Your task to perform on an android device: change text size in settings app Image 0: 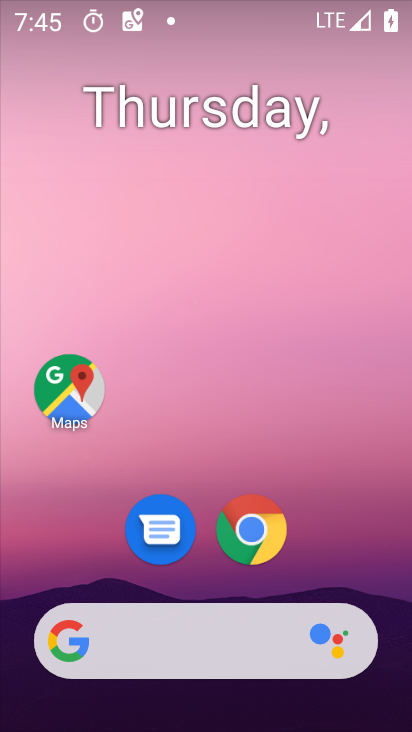
Step 0: drag from (385, 590) to (393, 212)
Your task to perform on an android device: change text size in settings app Image 1: 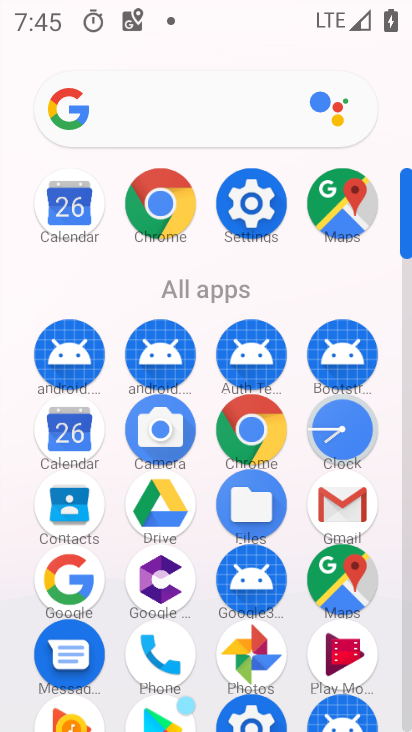
Step 1: click (247, 226)
Your task to perform on an android device: change text size in settings app Image 2: 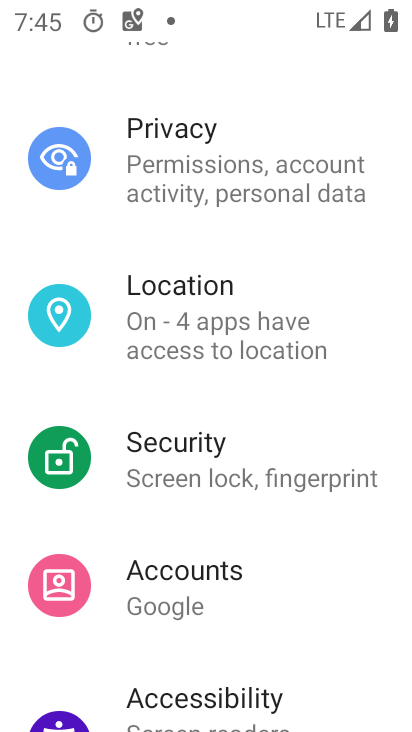
Step 2: drag from (360, 282) to (353, 401)
Your task to perform on an android device: change text size in settings app Image 3: 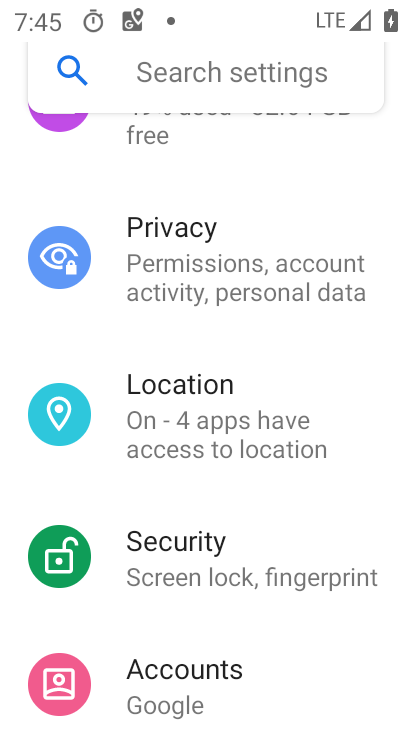
Step 3: drag from (364, 175) to (348, 391)
Your task to perform on an android device: change text size in settings app Image 4: 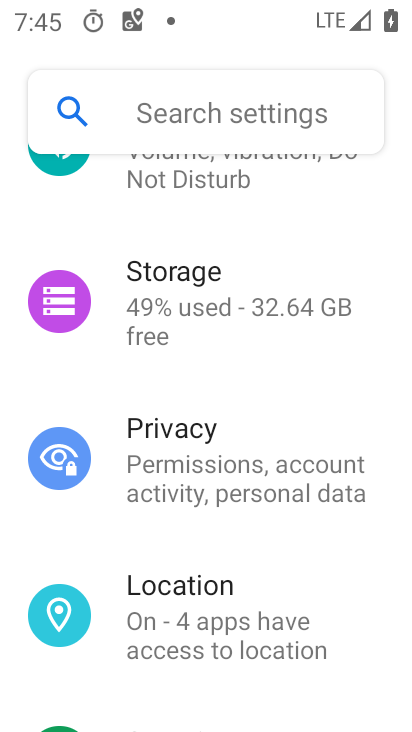
Step 4: drag from (375, 211) to (377, 371)
Your task to perform on an android device: change text size in settings app Image 5: 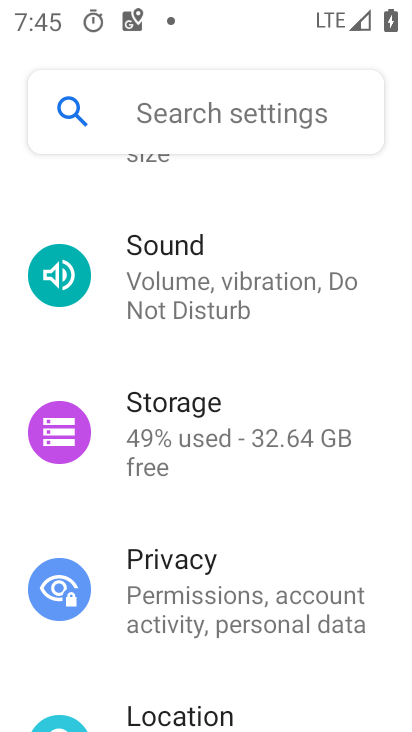
Step 5: drag from (382, 194) to (375, 338)
Your task to perform on an android device: change text size in settings app Image 6: 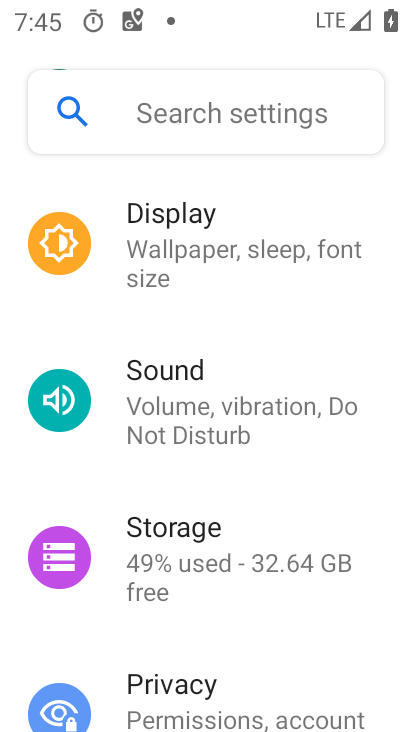
Step 6: drag from (385, 169) to (378, 276)
Your task to perform on an android device: change text size in settings app Image 7: 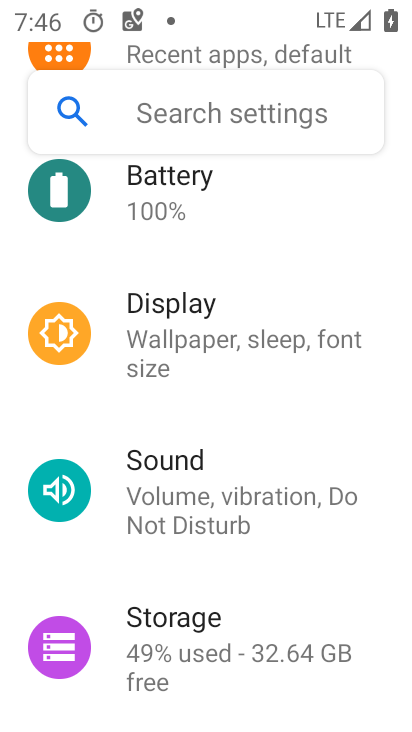
Step 7: drag from (379, 183) to (375, 293)
Your task to perform on an android device: change text size in settings app Image 8: 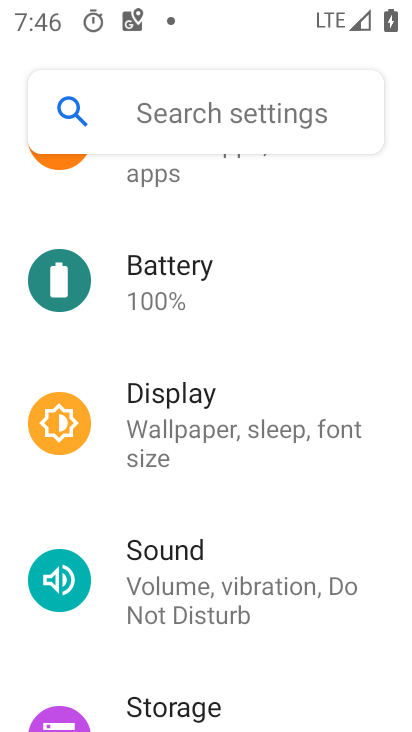
Step 8: drag from (371, 189) to (363, 294)
Your task to perform on an android device: change text size in settings app Image 9: 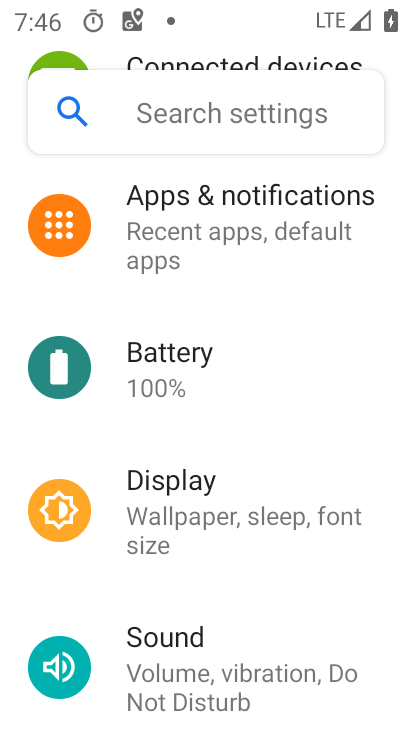
Step 9: drag from (389, 171) to (378, 264)
Your task to perform on an android device: change text size in settings app Image 10: 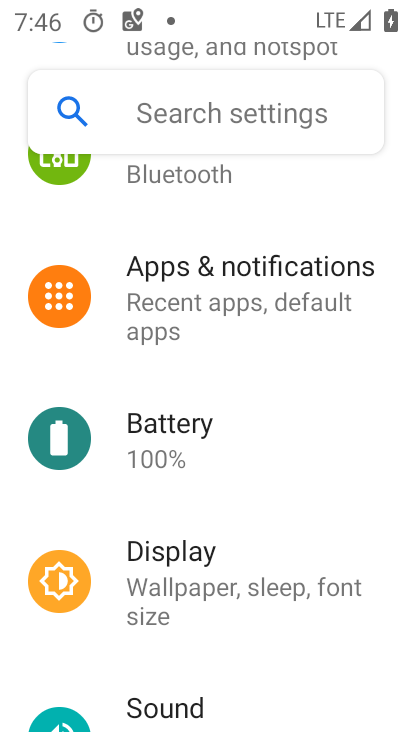
Step 10: drag from (380, 199) to (373, 286)
Your task to perform on an android device: change text size in settings app Image 11: 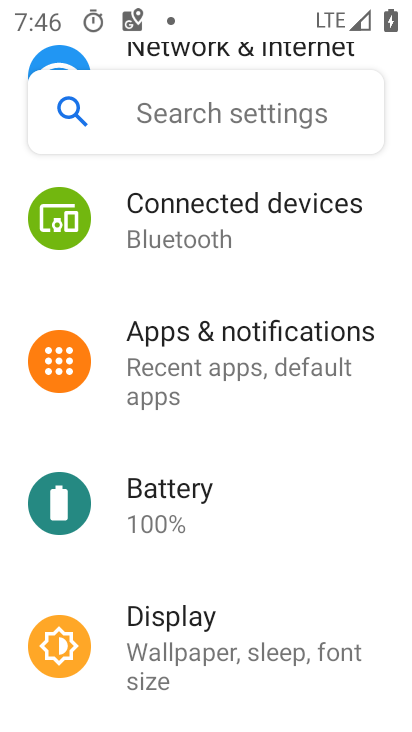
Step 11: drag from (382, 169) to (380, 285)
Your task to perform on an android device: change text size in settings app Image 12: 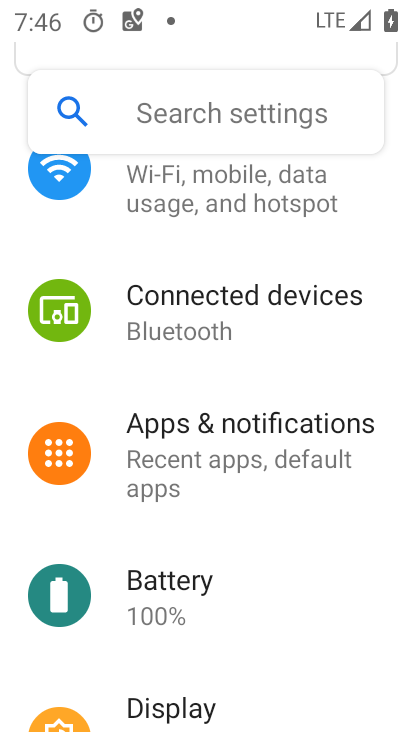
Step 12: drag from (377, 314) to (381, 208)
Your task to perform on an android device: change text size in settings app Image 13: 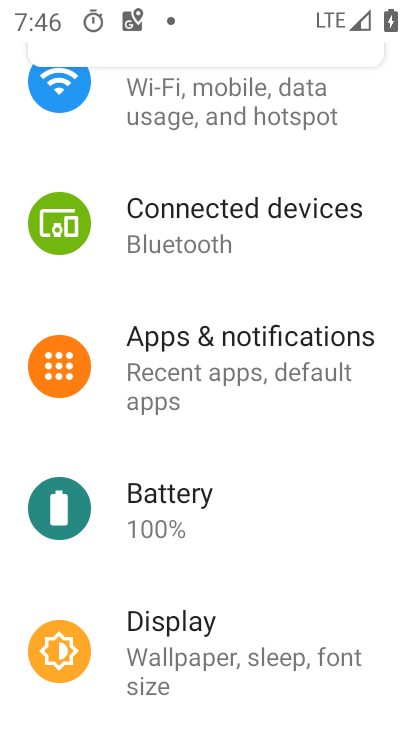
Step 13: drag from (376, 286) to (380, 198)
Your task to perform on an android device: change text size in settings app Image 14: 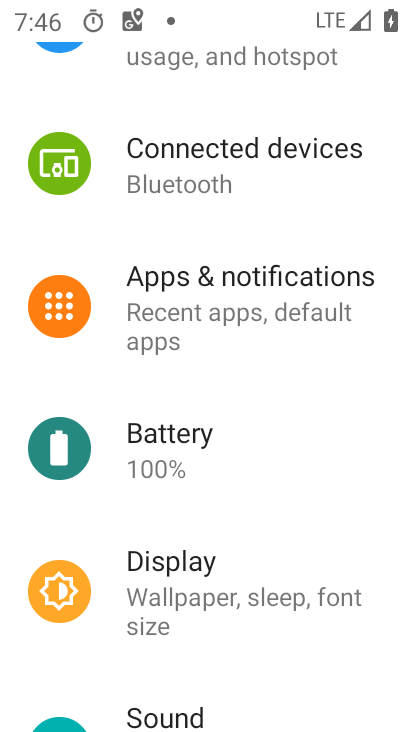
Step 14: drag from (364, 324) to (368, 203)
Your task to perform on an android device: change text size in settings app Image 15: 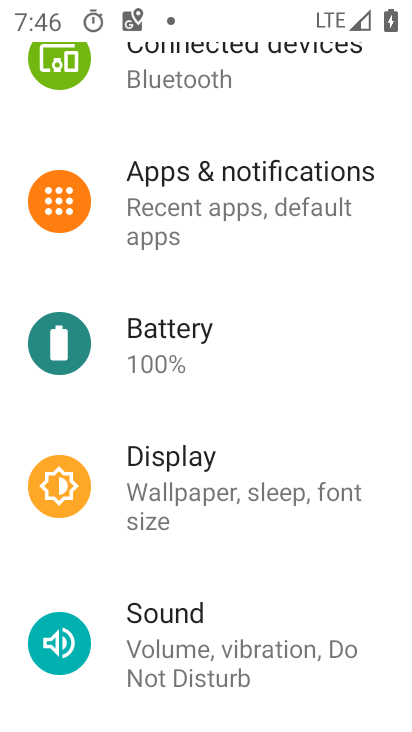
Step 15: drag from (358, 316) to (364, 217)
Your task to perform on an android device: change text size in settings app Image 16: 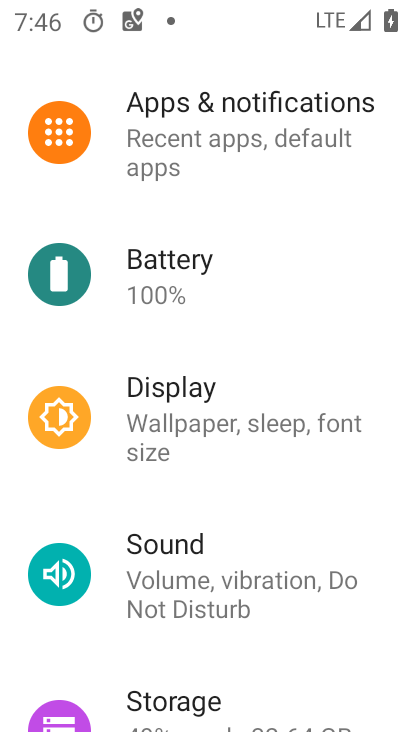
Step 16: drag from (361, 309) to (369, 228)
Your task to perform on an android device: change text size in settings app Image 17: 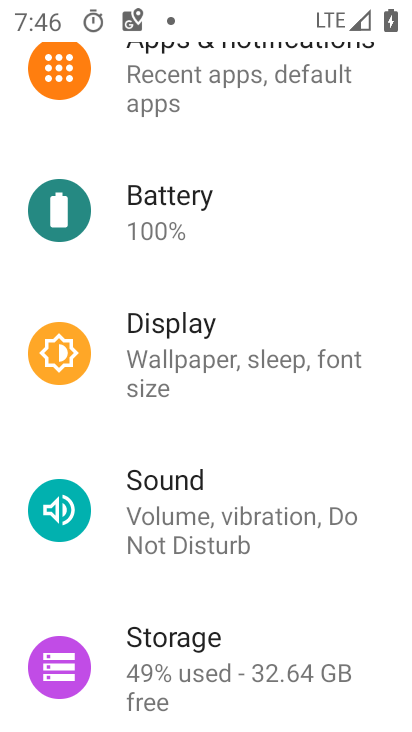
Step 17: drag from (360, 302) to (369, 239)
Your task to perform on an android device: change text size in settings app Image 18: 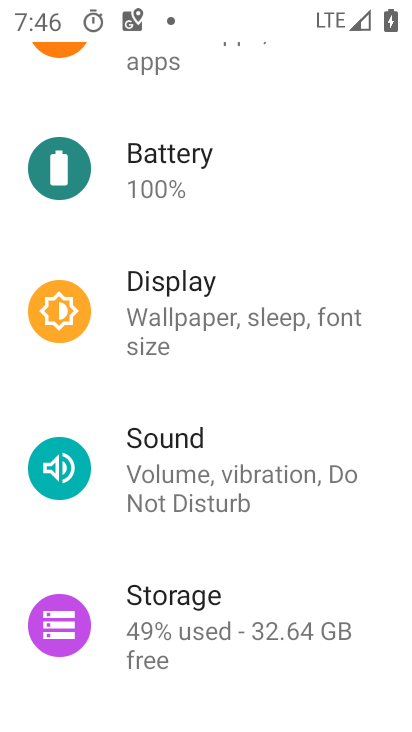
Step 18: drag from (347, 371) to (362, 205)
Your task to perform on an android device: change text size in settings app Image 19: 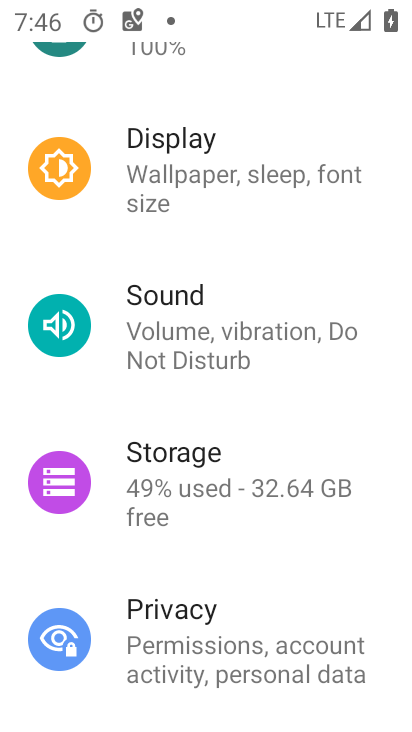
Step 19: click (265, 181)
Your task to perform on an android device: change text size in settings app Image 20: 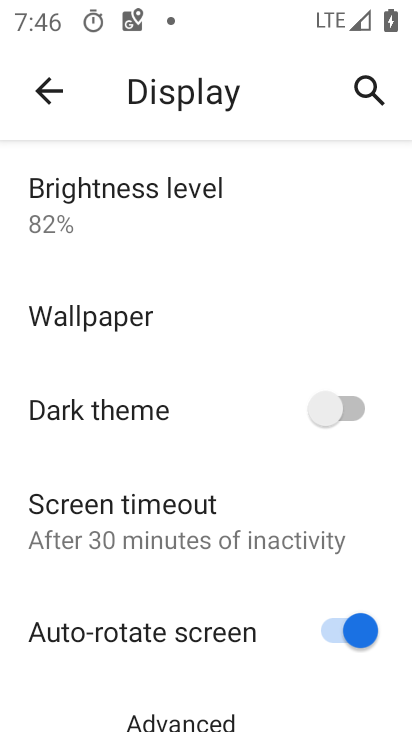
Step 20: drag from (258, 412) to (274, 296)
Your task to perform on an android device: change text size in settings app Image 21: 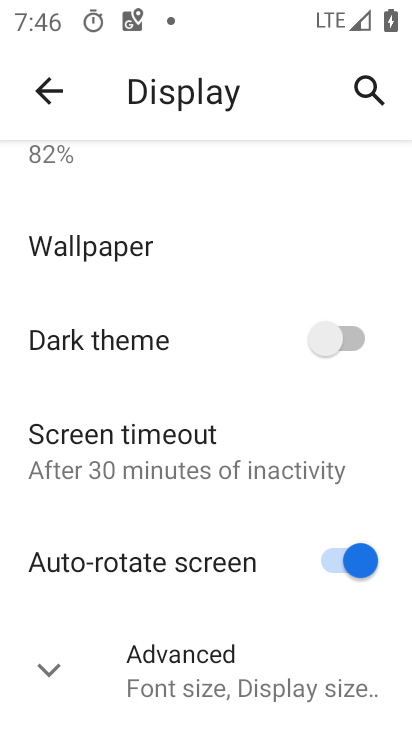
Step 21: click (221, 638)
Your task to perform on an android device: change text size in settings app Image 22: 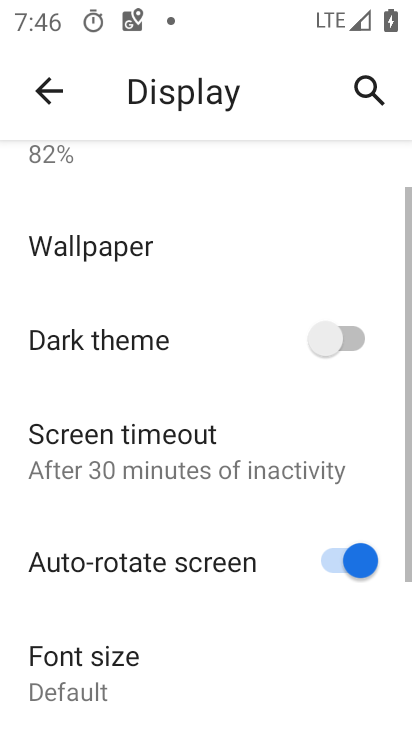
Step 22: drag from (282, 565) to (286, 374)
Your task to perform on an android device: change text size in settings app Image 23: 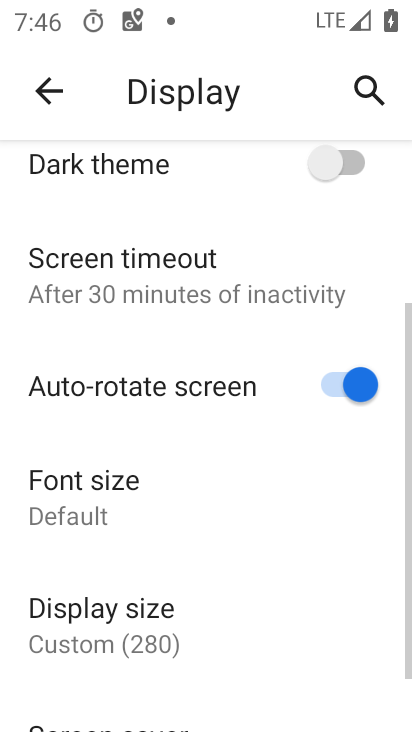
Step 23: drag from (273, 529) to (276, 357)
Your task to perform on an android device: change text size in settings app Image 24: 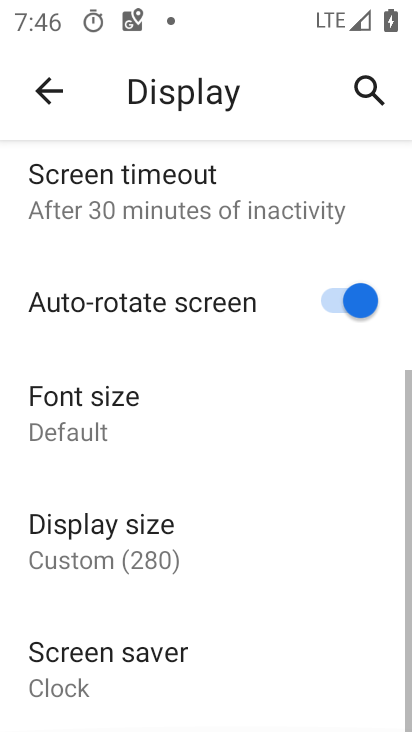
Step 24: click (215, 444)
Your task to perform on an android device: change text size in settings app Image 25: 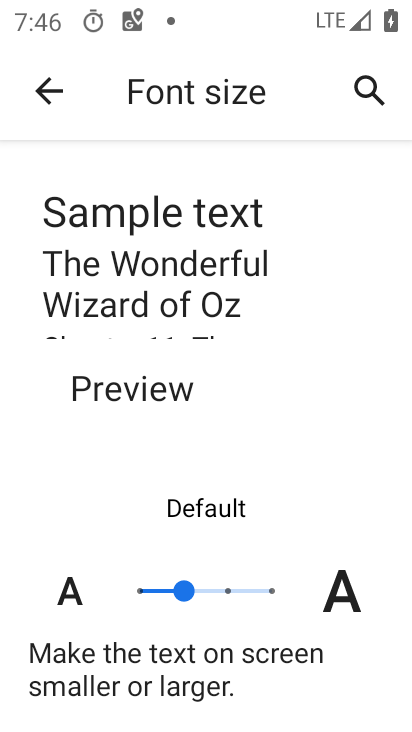
Step 25: click (223, 594)
Your task to perform on an android device: change text size in settings app Image 26: 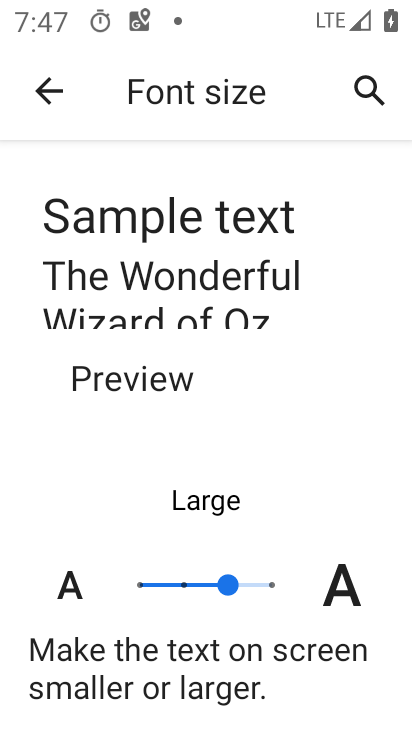
Step 26: task complete